Your task to perform on an android device: read, delete, or share a saved page in the chrome app Image 0: 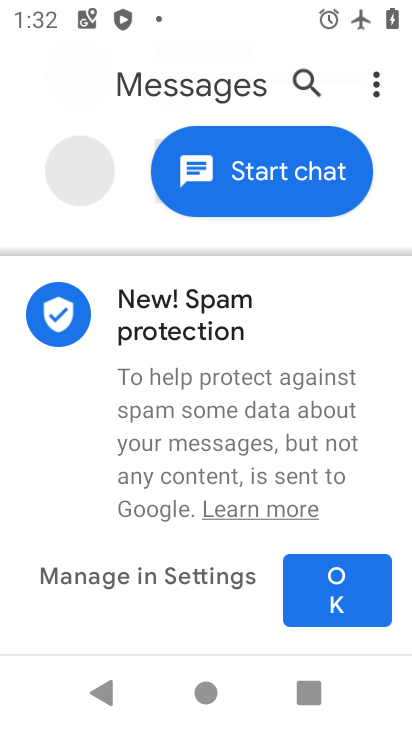
Step 0: press home button
Your task to perform on an android device: read, delete, or share a saved page in the chrome app Image 1: 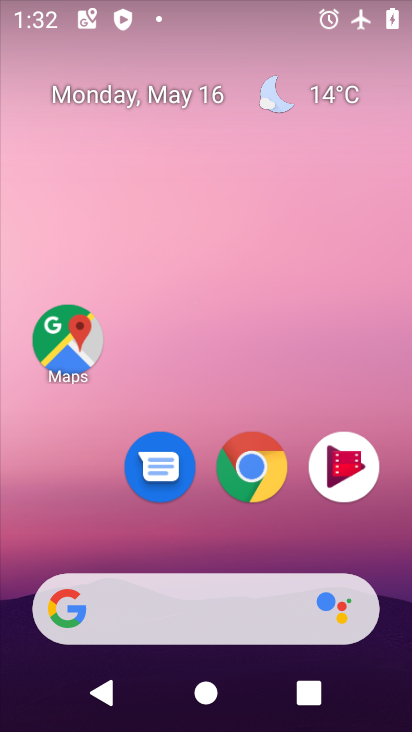
Step 1: click (194, 542)
Your task to perform on an android device: read, delete, or share a saved page in the chrome app Image 2: 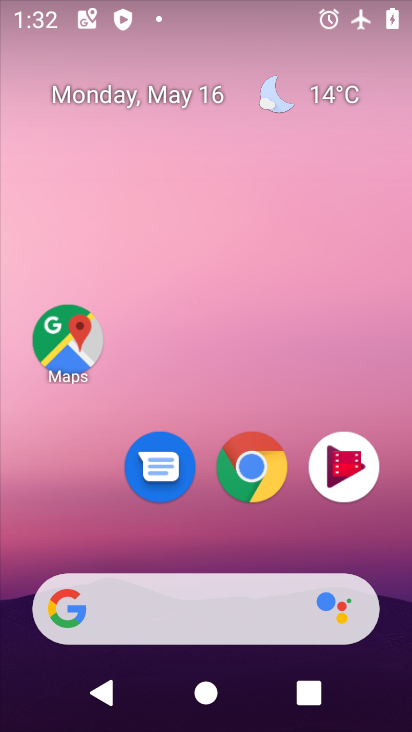
Step 2: drag from (220, 401) to (277, 83)
Your task to perform on an android device: read, delete, or share a saved page in the chrome app Image 3: 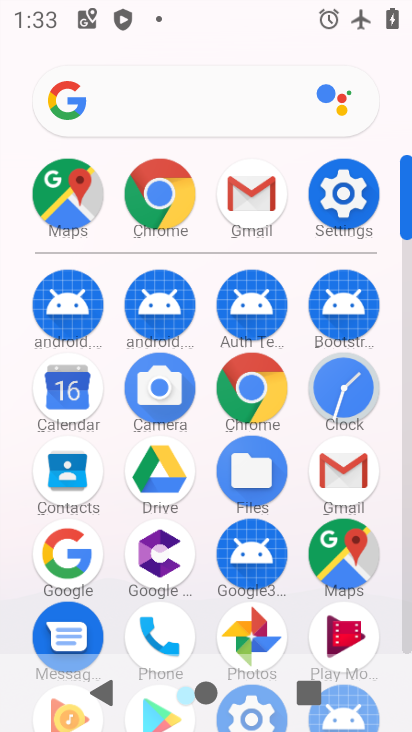
Step 3: click (149, 187)
Your task to perform on an android device: read, delete, or share a saved page in the chrome app Image 4: 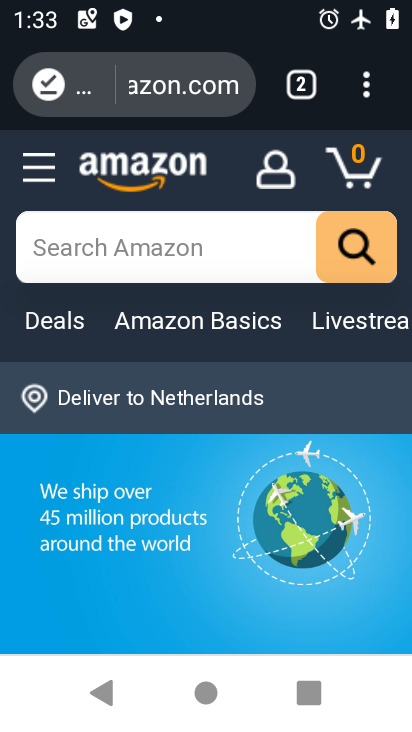
Step 4: click (353, 77)
Your task to perform on an android device: read, delete, or share a saved page in the chrome app Image 5: 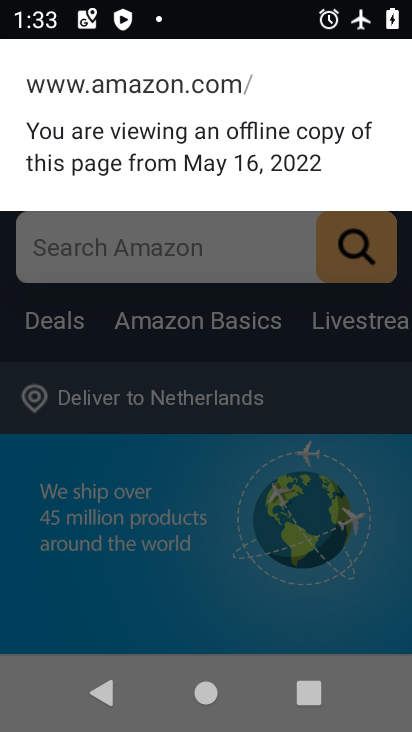
Step 5: click (301, 183)
Your task to perform on an android device: read, delete, or share a saved page in the chrome app Image 6: 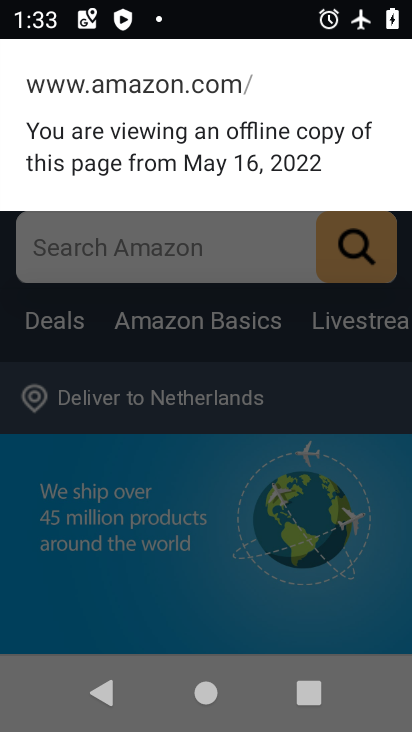
Step 6: press back button
Your task to perform on an android device: read, delete, or share a saved page in the chrome app Image 7: 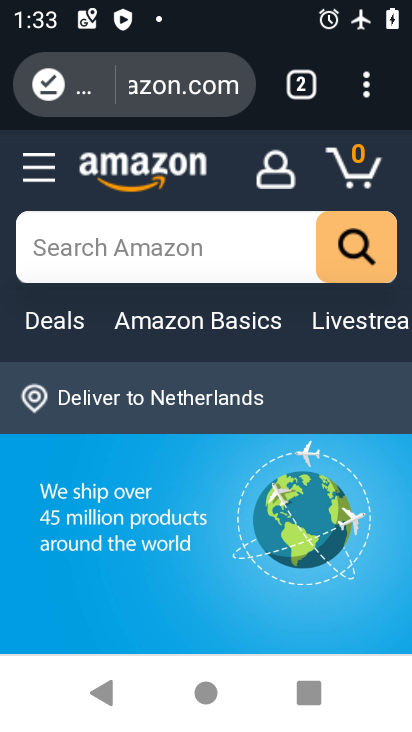
Step 7: click (349, 88)
Your task to perform on an android device: read, delete, or share a saved page in the chrome app Image 8: 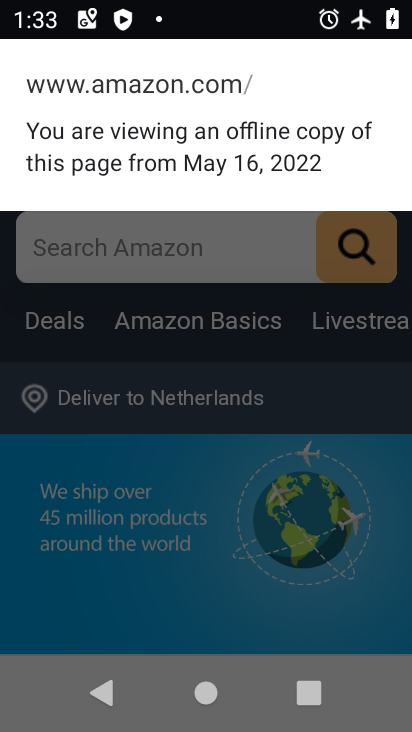
Step 8: press back button
Your task to perform on an android device: read, delete, or share a saved page in the chrome app Image 9: 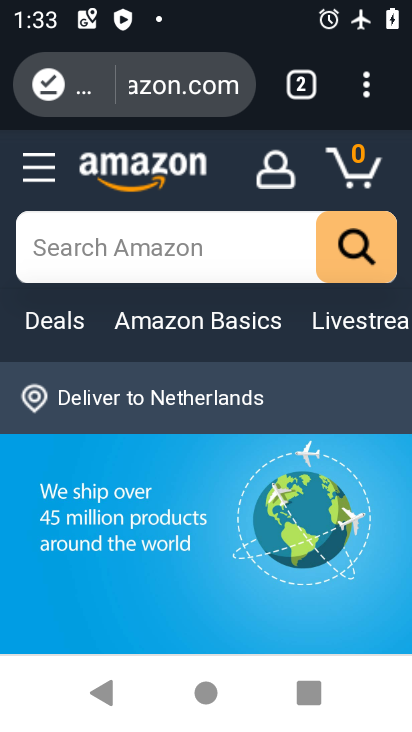
Step 9: click (351, 83)
Your task to perform on an android device: read, delete, or share a saved page in the chrome app Image 10: 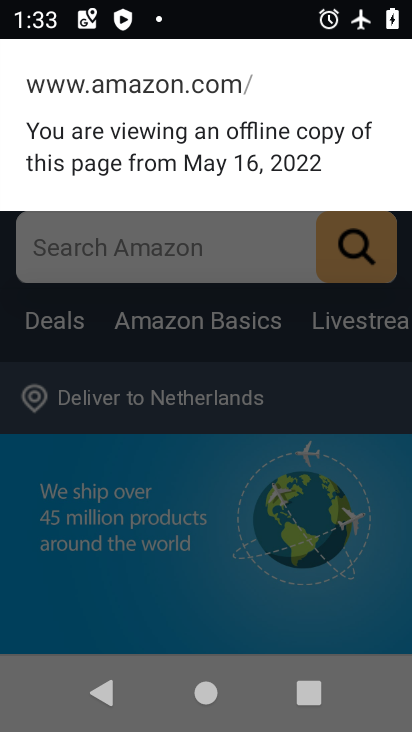
Step 10: press back button
Your task to perform on an android device: read, delete, or share a saved page in the chrome app Image 11: 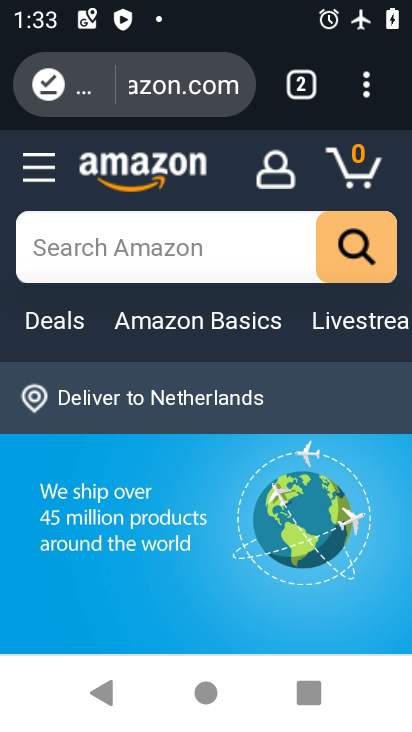
Step 11: click (368, 82)
Your task to perform on an android device: read, delete, or share a saved page in the chrome app Image 12: 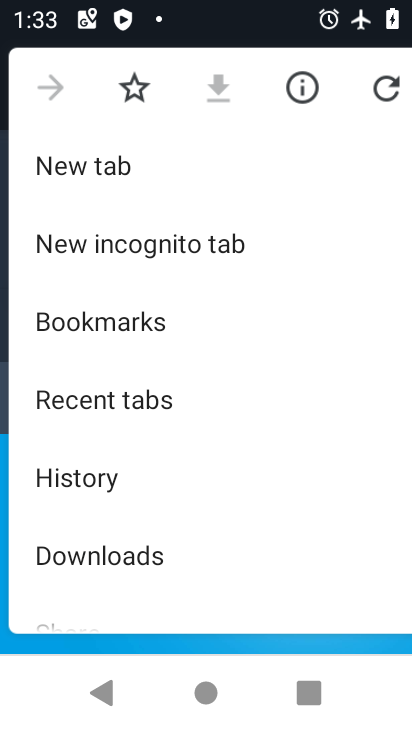
Step 12: click (112, 562)
Your task to perform on an android device: read, delete, or share a saved page in the chrome app Image 13: 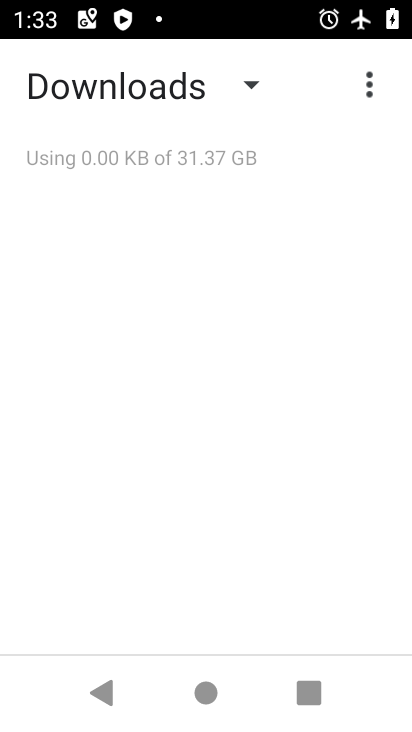
Step 13: click (237, 90)
Your task to perform on an android device: read, delete, or share a saved page in the chrome app Image 14: 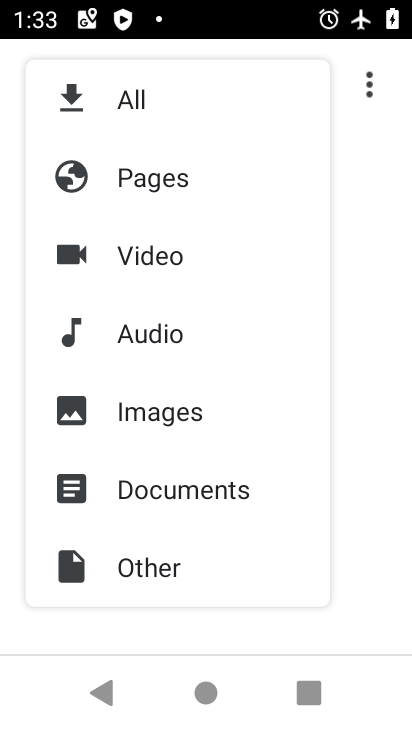
Step 14: drag from (171, 474) to (232, 83)
Your task to perform on an android device: read, delete, or share a saved page in the chrome app Image 15: 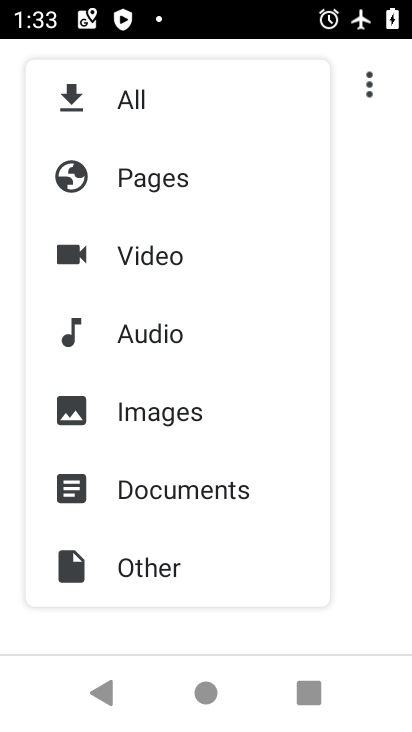
Step 15: click (163, 201)
Your task to perform on an android device: read, delete, or share a saved page in the chrome app Image 16: 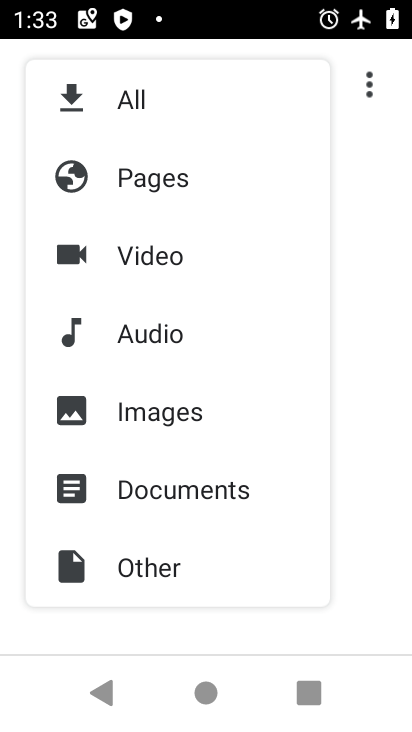
Step 16: click (161, 187)
Your task to perform on an android device: read, delete, or share a saved page in the chrome app Image 17: 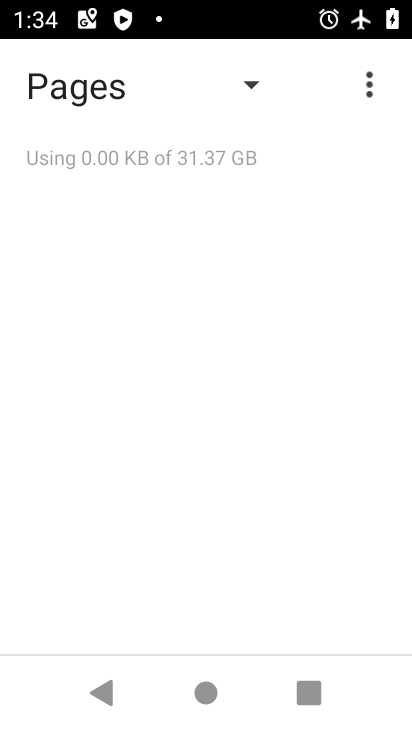
Step 17: task complete